Your task to perform on an android device: Open notification settings Image 0: 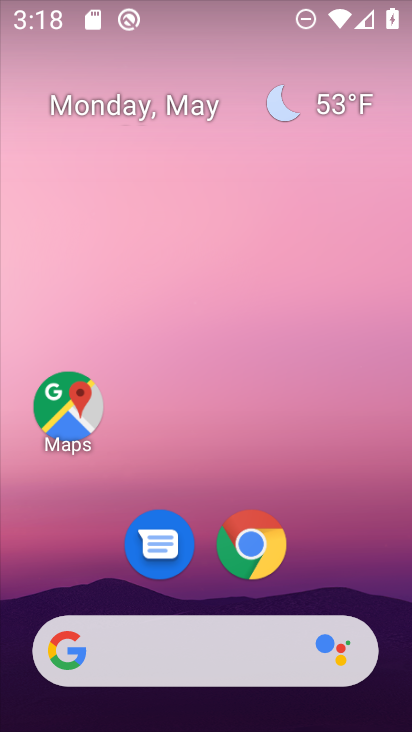
Step 0: drag from (140, 715) to (233, 58)
Your task to perform on an android device: Open notification settings Image 1: 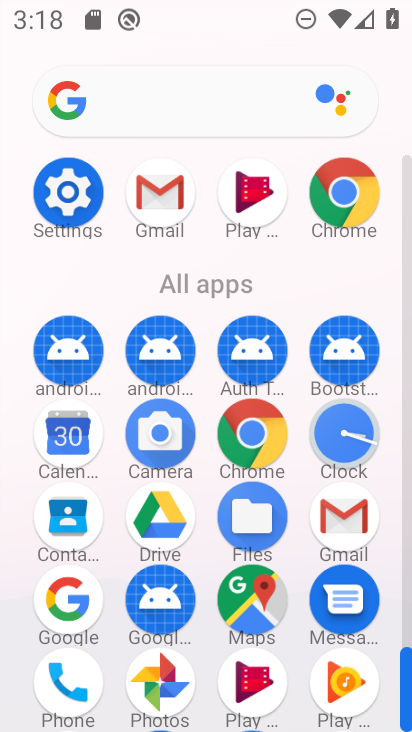
Step 1: click (72, 207)
Your task to perform on an android device: Open notification settings Image 2: 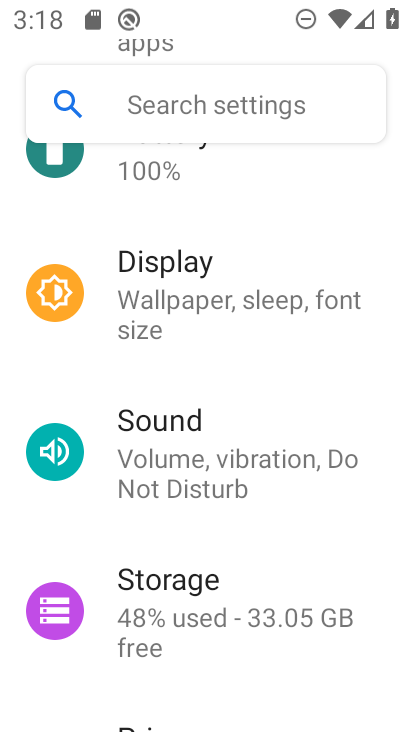
Step 2: drag from (298, 228) to (302, 630)
Your task to perform on an android device: Open notification settings Image 3: 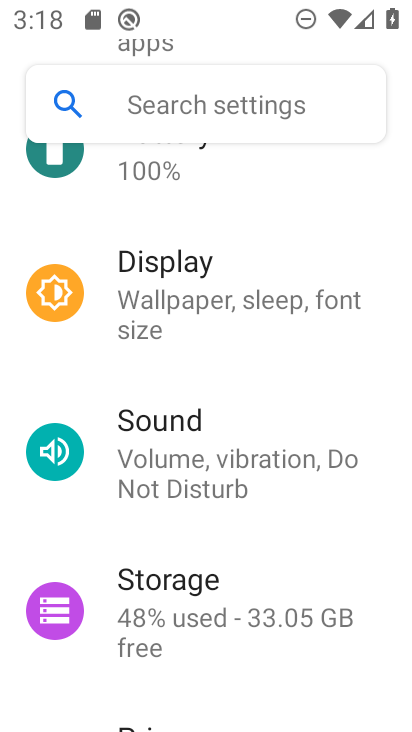
Step 3: drag from (203, 179) to (140, 684)
Your task to perform on an android device: Open notification settings Image 4: 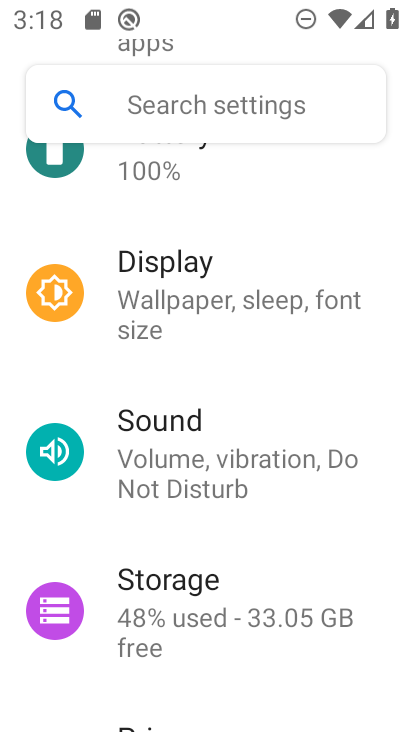
Step 4: drag from (83, 185) to (55, 715)
Your task to perform on an android device: Open notification settings Image 5: 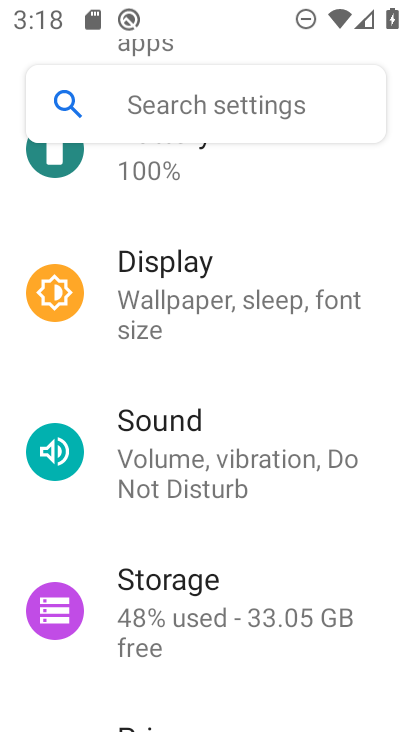
Step 5: drag from (255, 188) to (248, 543)
Your task to perform on an android device: Open notification settings Image 6: 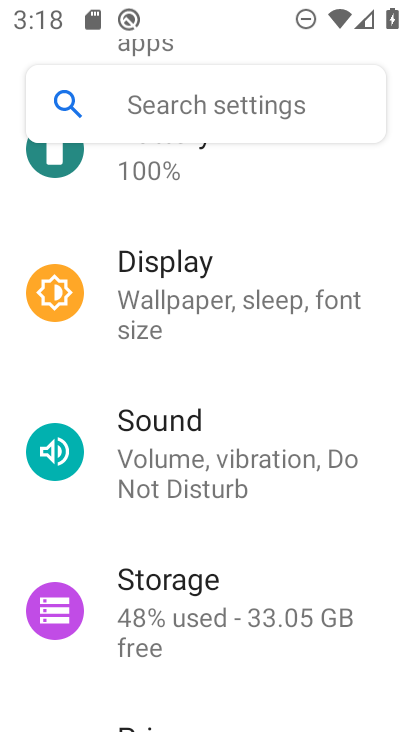
Step 6: drag from (283, 215) to (270, 687)
Your task to perform on an android device: Open notification settings Image 7: 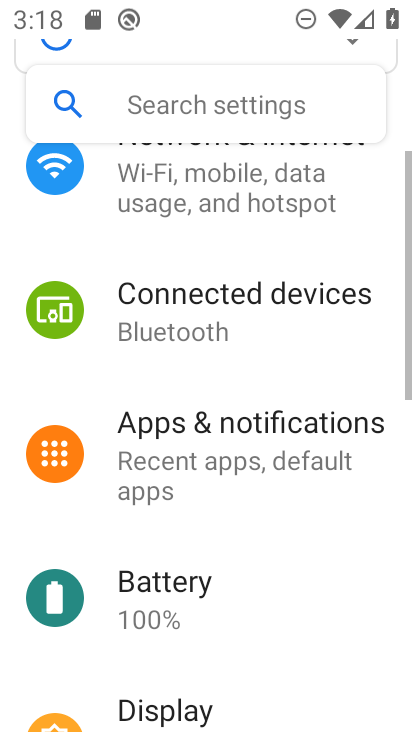
Step 7: drag from (312, 207) to (331, 670)
Your task to perform on an android device: Open notification settings Image 8: 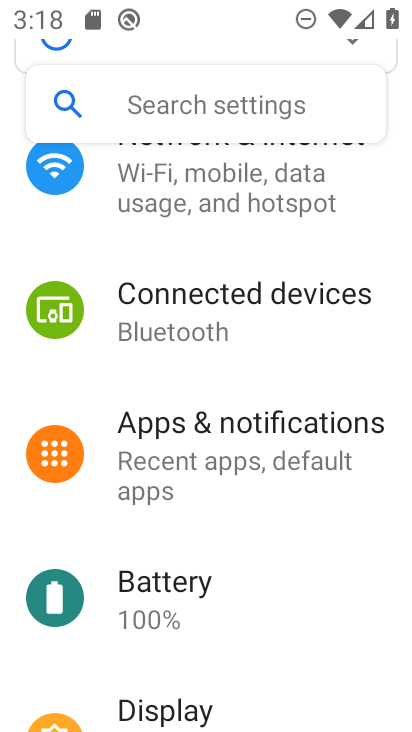
Step 8: click (276, 447)
Your task to perform on an android device: Open notification settings Image 9: 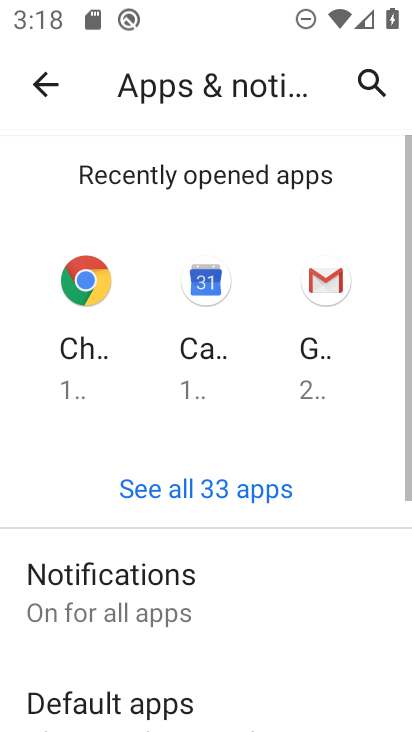
Step 9: task complete